Your task to perform on an android device: change keyboard looks Image 0: 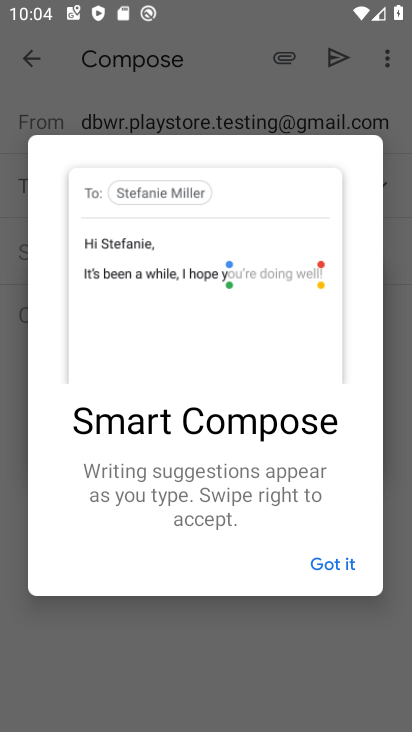
Step 0: press home button
Your task to perform on an android device: change keyboard looks Image 1: 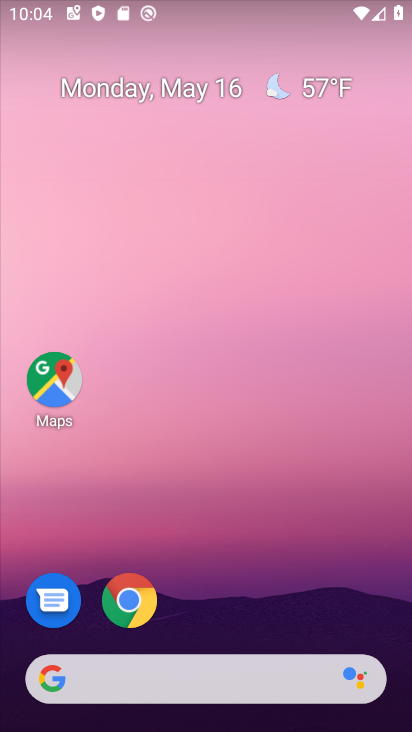
Step 1: drag from (375, 571) to (306, 131)
Your task to perform on an android device: change keyboard looks Image 2: 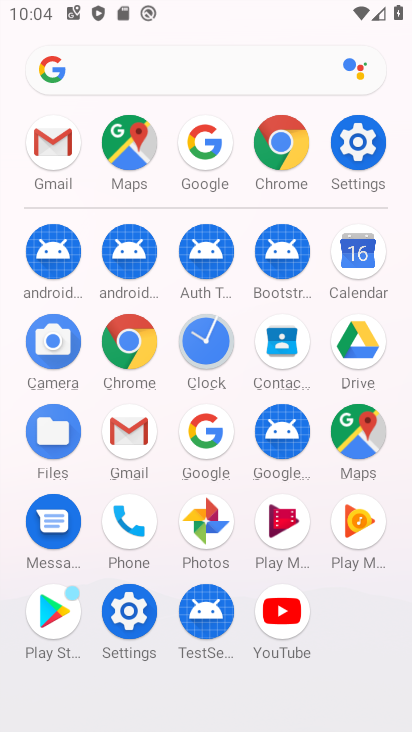
Step 2: click (364, 149)
Your task to perform on an android device: change keyboard looks Image 3: 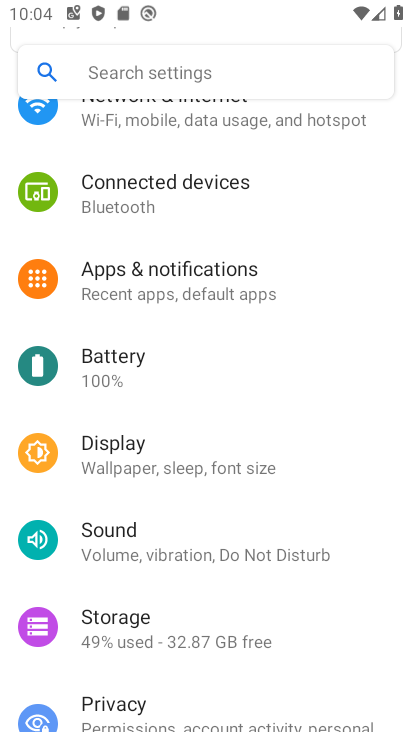
Step 3: drag from (205, 656) to (220, 243)
Your task to perform on an android device: change keyboard looks Image 4: 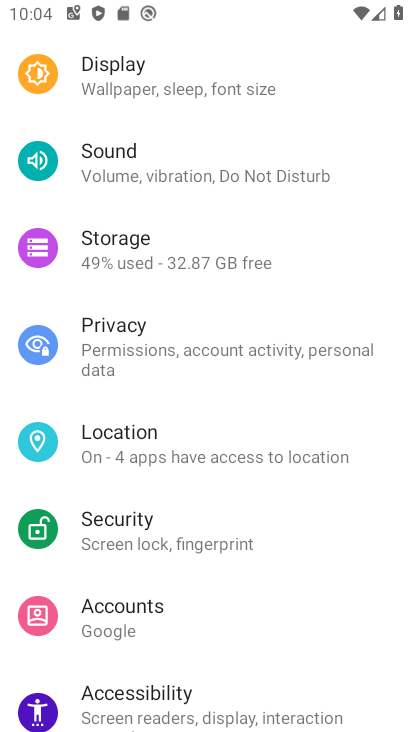
Step 4: drag from (224, 611) to (229, 233)
Your task to perform on an android device: change keyboard looks Image 5: 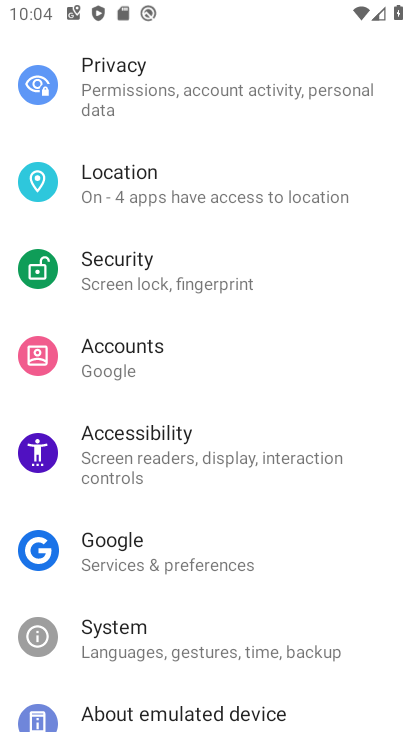
Step 5: click (231, 631)
Your task to perform on an android device: change keyboard looks Image 6: 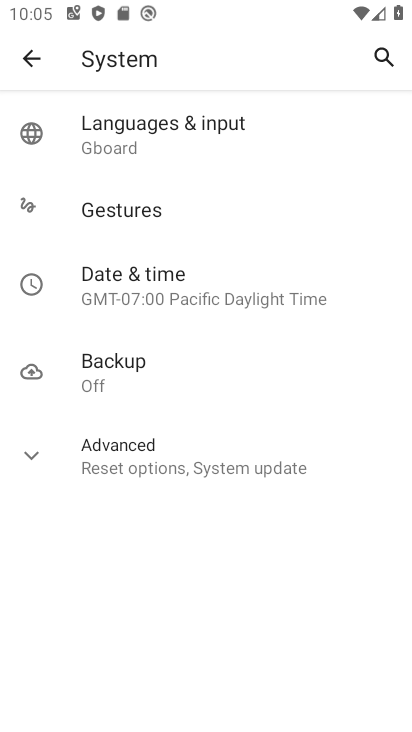
Step 6: click (149, 114)
Your task to perform on an android device: change keyboard looks Image 7: 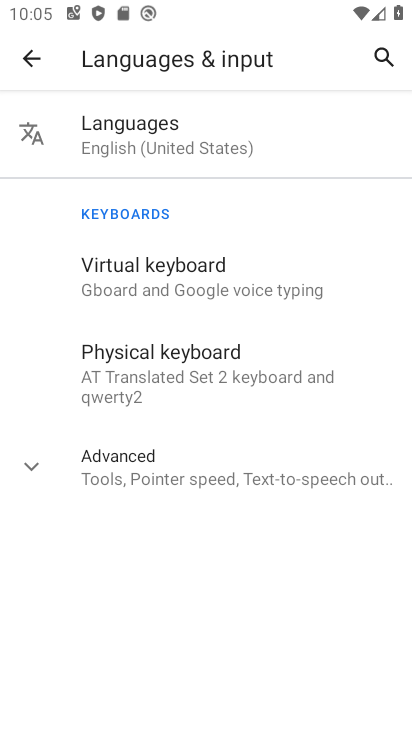
Step 7: click (214, 282)
Your task to perform on an android device: change keyboard looks Image 8: 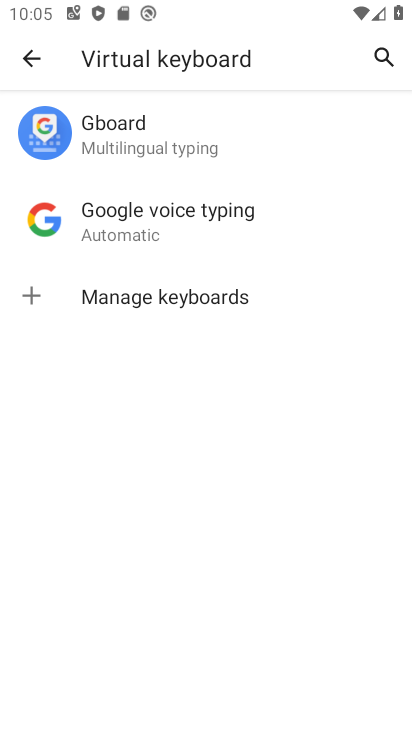
Step 8: click (189, 126)
Your task to perform on an android device: change keyboard looks Image 9: 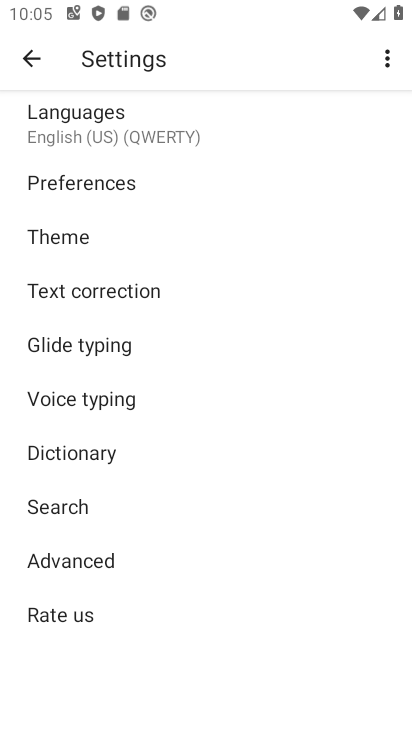
Step 9: click (170, 238)
Your task to perform on an android device: change keyboard looks Image 10: 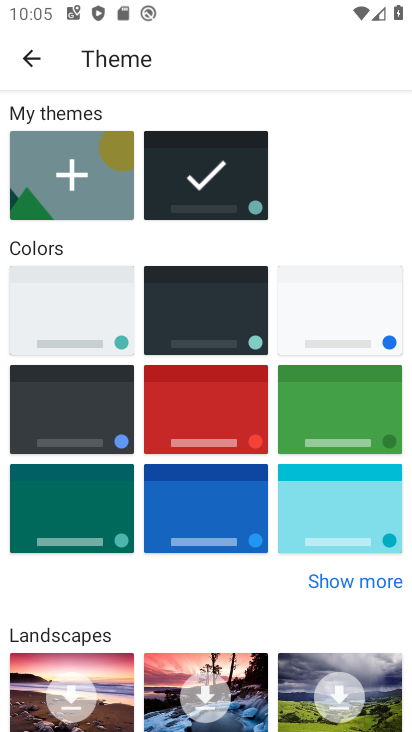
Step 10: click (233, 408)
Your task to perform on an android device: change keyboard looks Image 11: 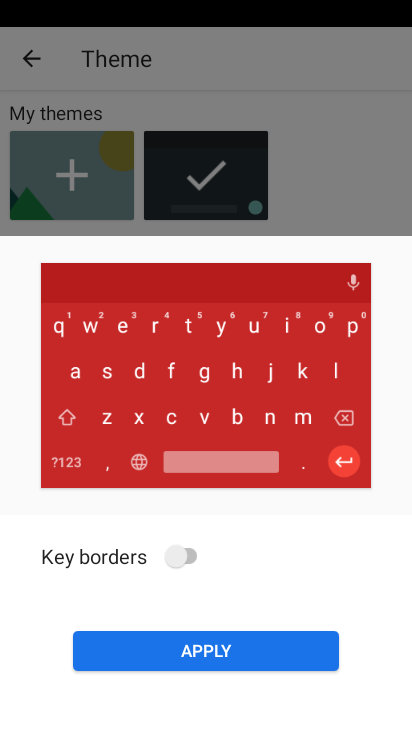
Step 11: click (249, 654)
Your task to perform on an android device: change keyboard looks Image 12: 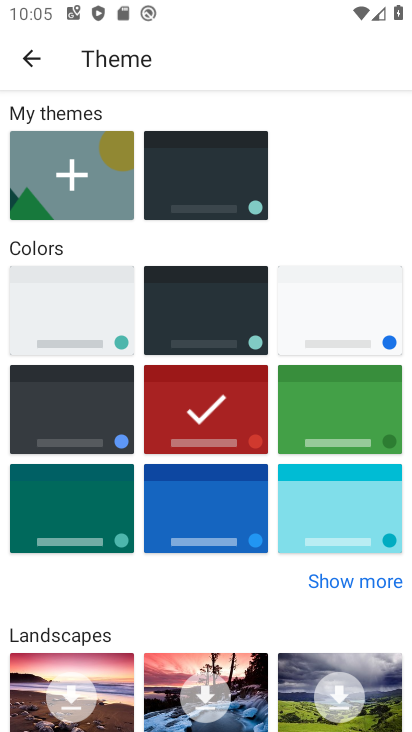
Step 12: task complete